Your task to perform on an android device: read, delete, or share a saved page in the chrome app Image 0: 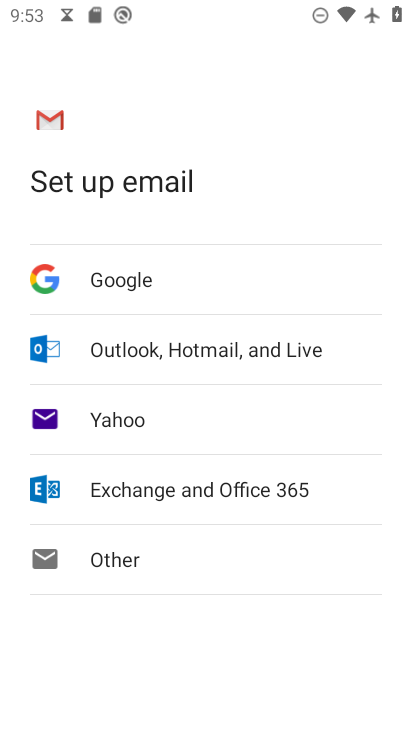
Step 0: press home button
Your task to perform on an android device: read, delete, or share a saved page in the chrome app Image 1: 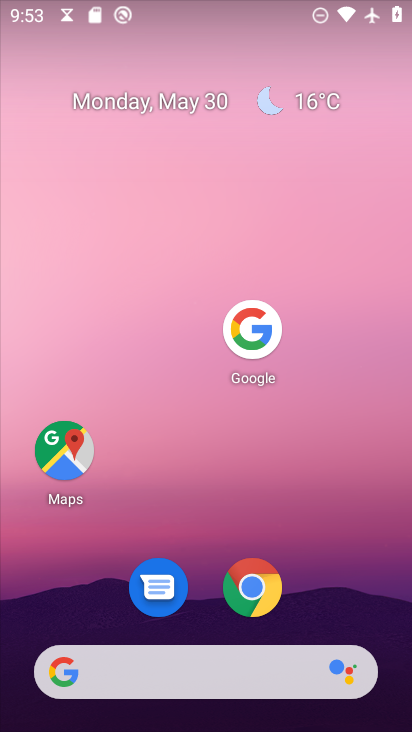
Step 1: click (253, 591)
Your task to perform on an android device: read, delete, or share a saved page in the chrome app Image 2: 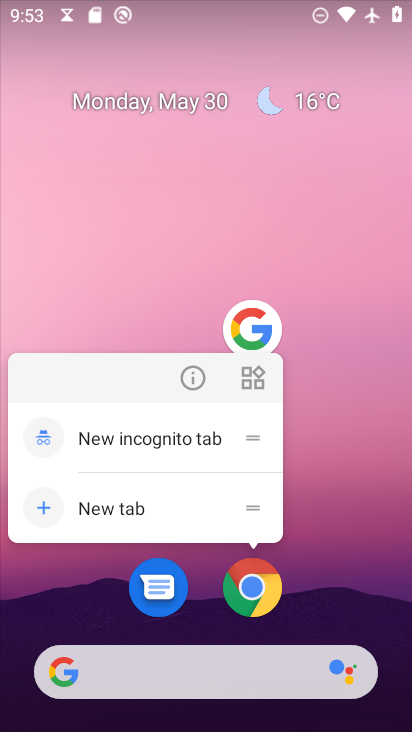
Step 2: click (261, 586)
Your task to perform on an android device: read, delete, or share a saved page in the chrome app Image 3: 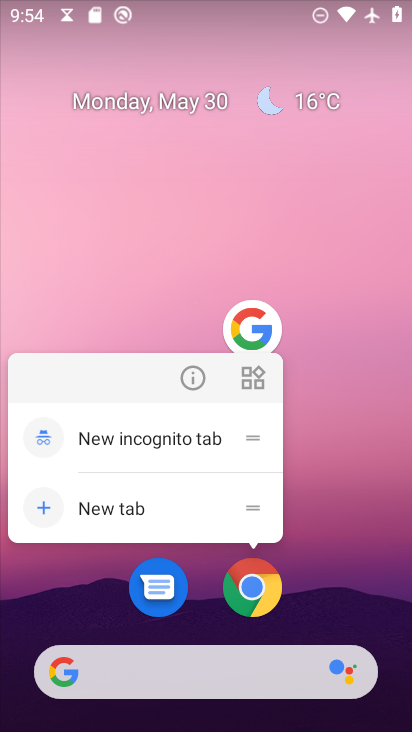
Step 3: click (252, 595)
Your task to perform on an android device: read, delete, or share a saved page in the chrome app Image 4: 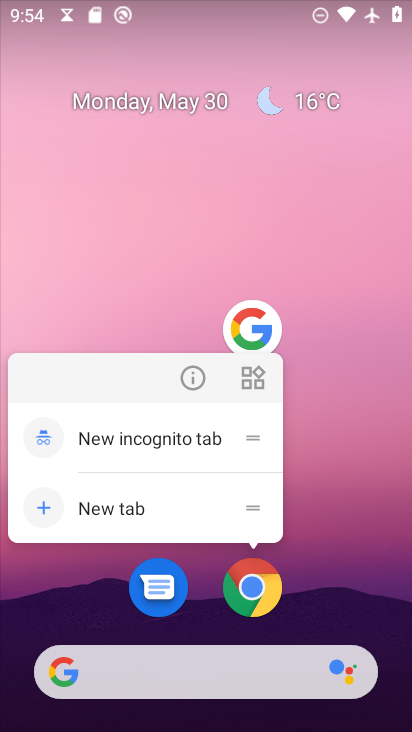
Step 4: click (250, 600)
Your task to perform on an android device: read, delete, or share a saved page in the chrome app Image 5: 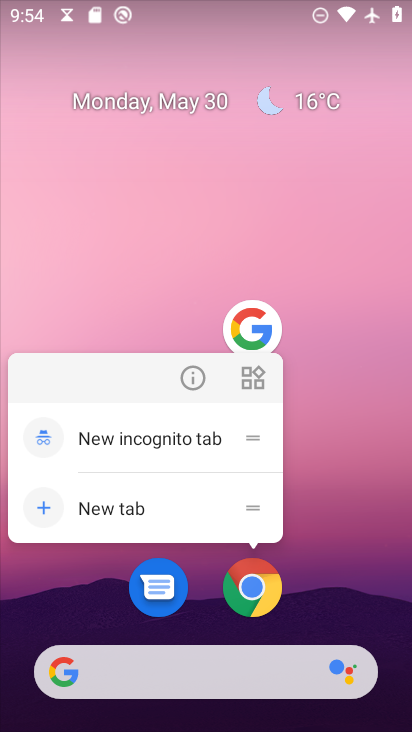
Step 5: click (242, 595)
Your task to perform on an android device: read, delete, or share a saved page in the chrome app Image 6: 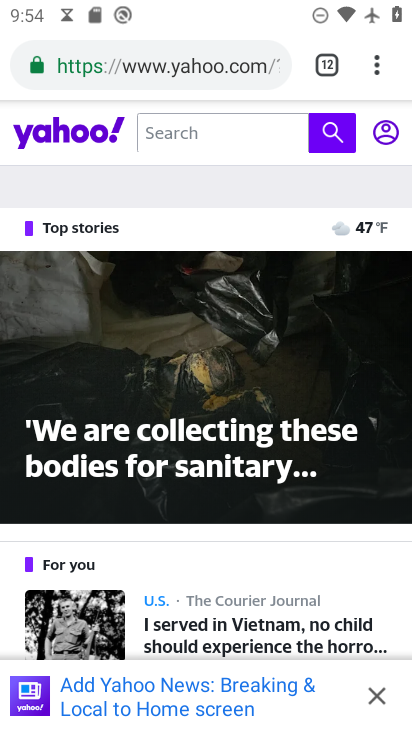
Step 6: drag from (377, 68) to (216, 432)
Your task to perform on an android device: read, delete, or share a saved page in the chrome app Image 7: 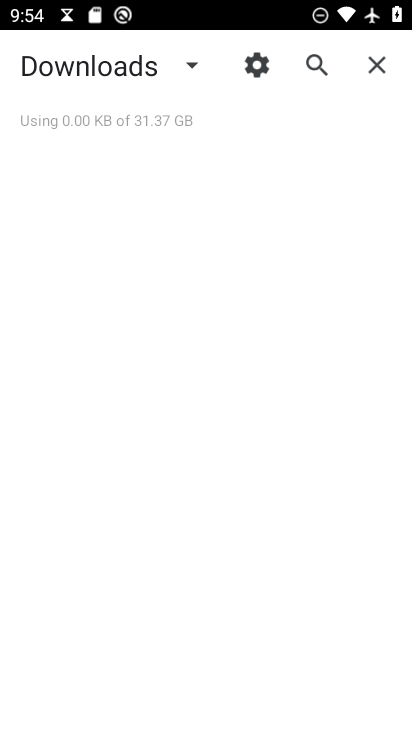
Step 7: click (184, 61)
Your task to perform on an android device: read, delete, or share a saved page in the chrome app Image 8: 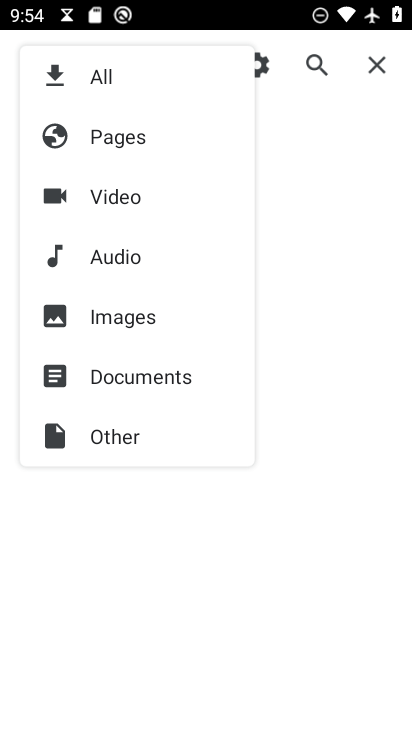
Step 8: click (134, 131)
Your task to perform on an android device: read, delete, or share a saved page in the chrome app Image 9: 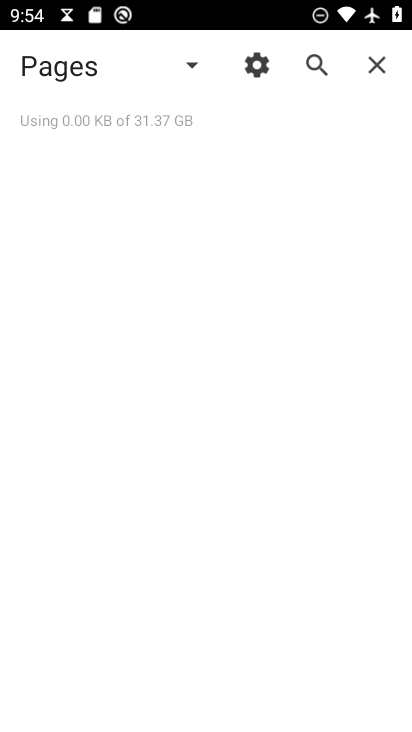
Step 9: task complete